Your task to perform on an android device: Go to calendar. Show me events next week Image 0: 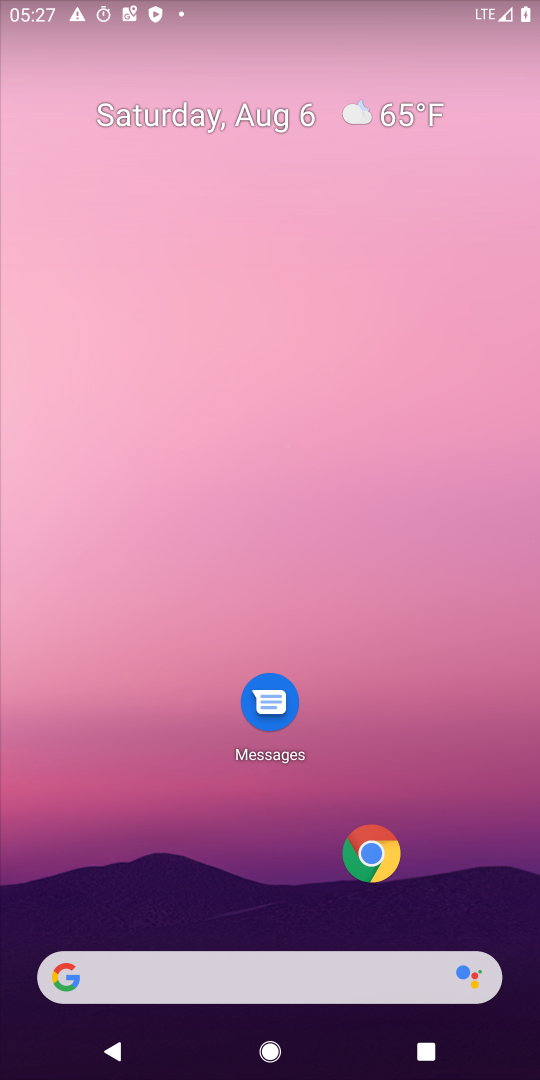
Step 0: press home button
Your task to perform on an android device: Go to calendar. Show me events next week Image 1: 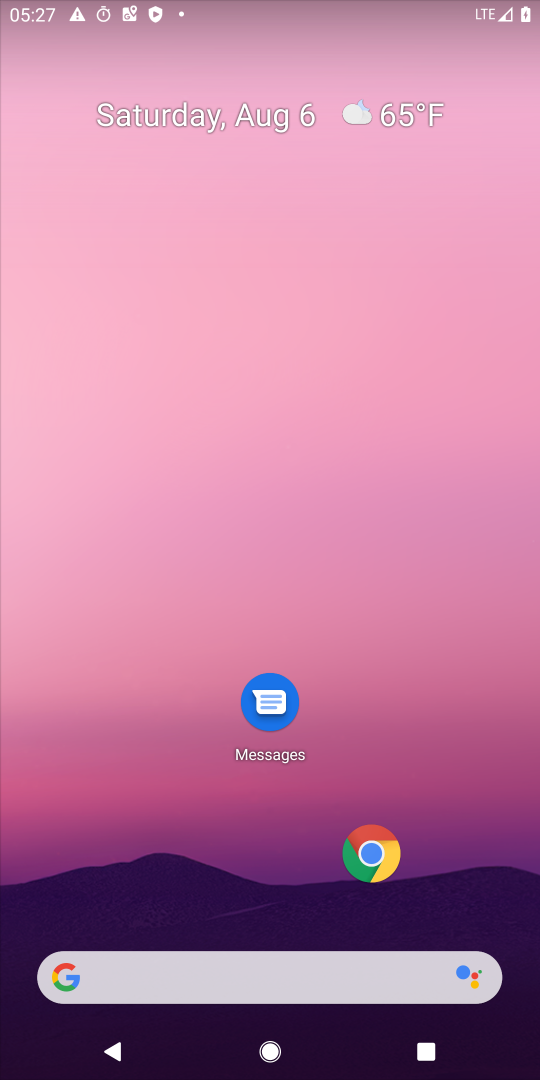
Step 1: drag from (180, 863) to (156, 53)
Your task to perform on an android device: Go to calendar. Show me events next week Image 2: 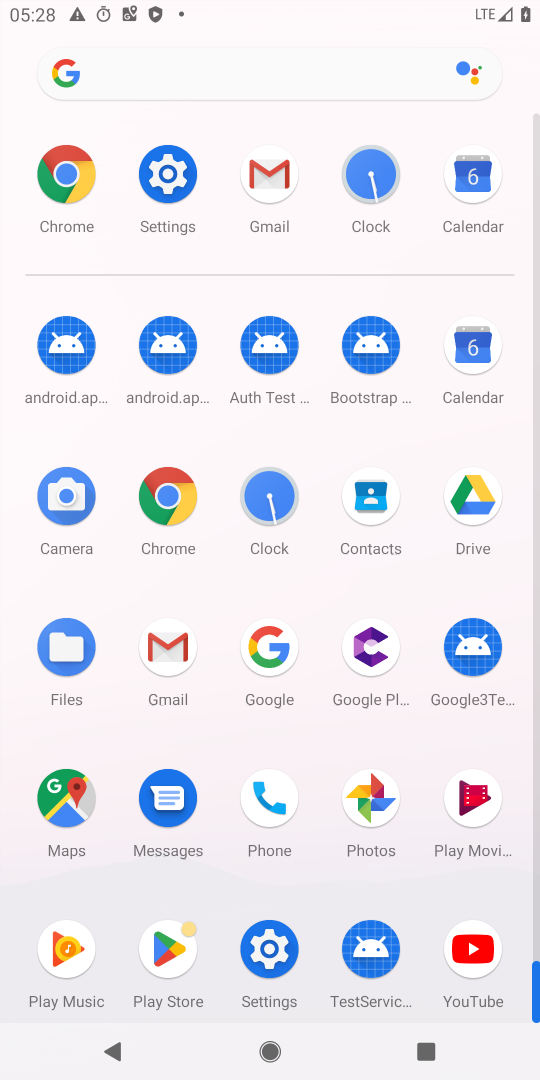
Step 2: click (457, 332)
Your task to perform on an android device: Go to calendar. Show me events next week Image 3: 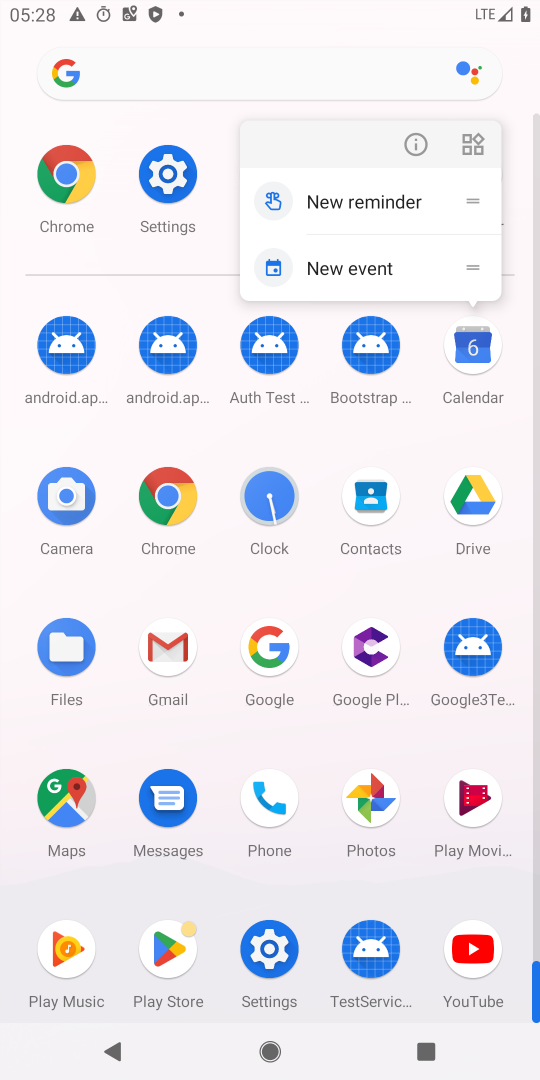
Step 3: click (482, 347)
Your task to perform on an android device: Go to calendar. Show me events next week Image 4: 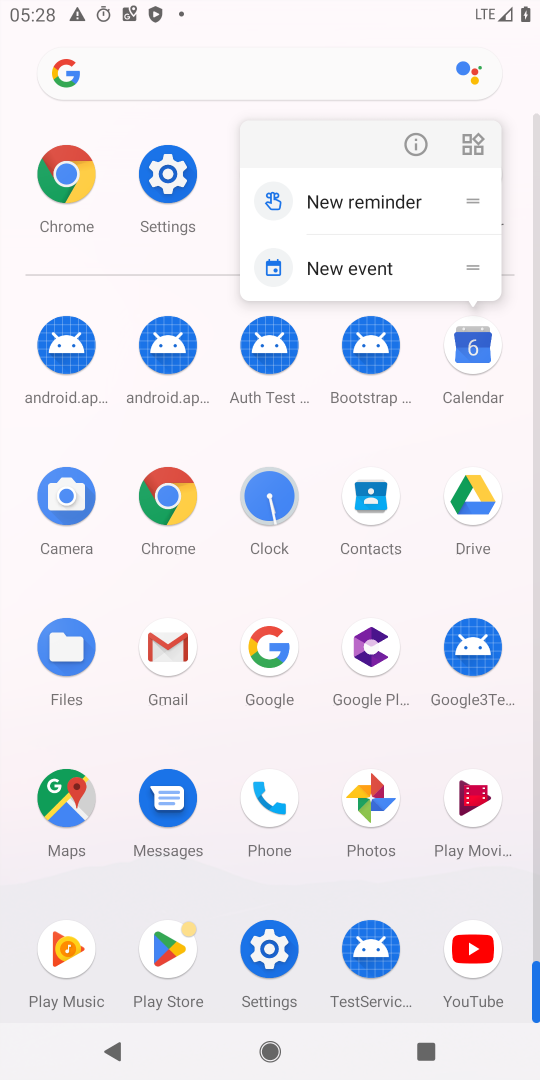
Step 4: click (484, 356)
Your task to perform on an android device: Go to calendar. Show me events next week Image 5: 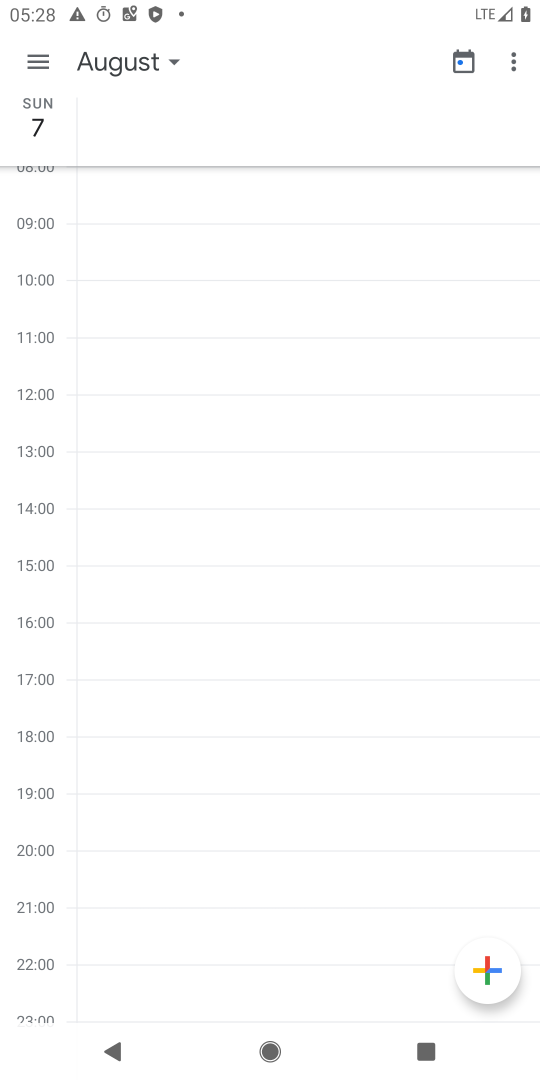
Step 5: click (48, 57)
Your task to perform on an android device: Go to calendar. Show me events next week Image 6: 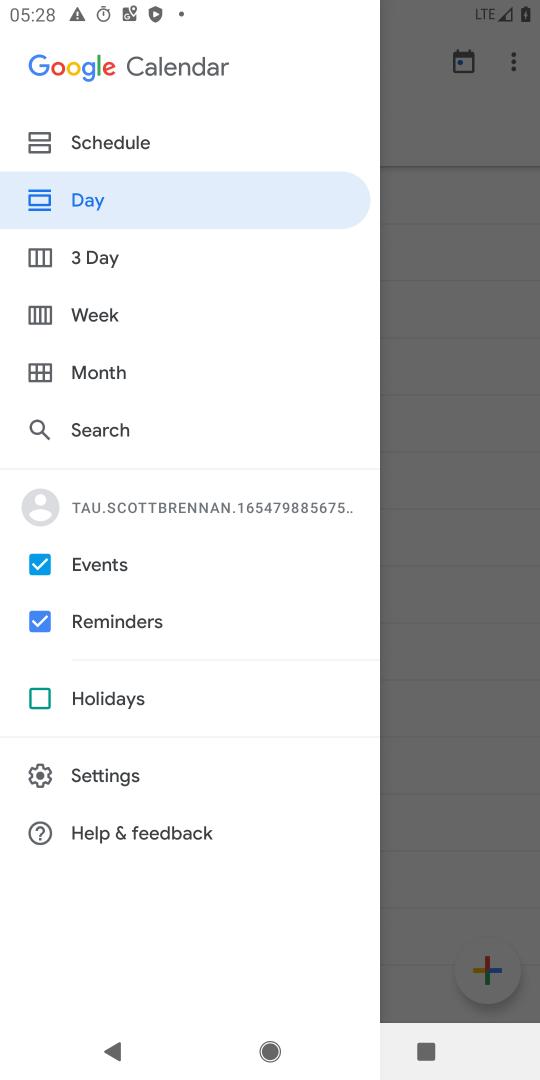
Step 6: click (101, 316)
Your task to perform on an android device: Go to calendar. Show me events next week Image 7: 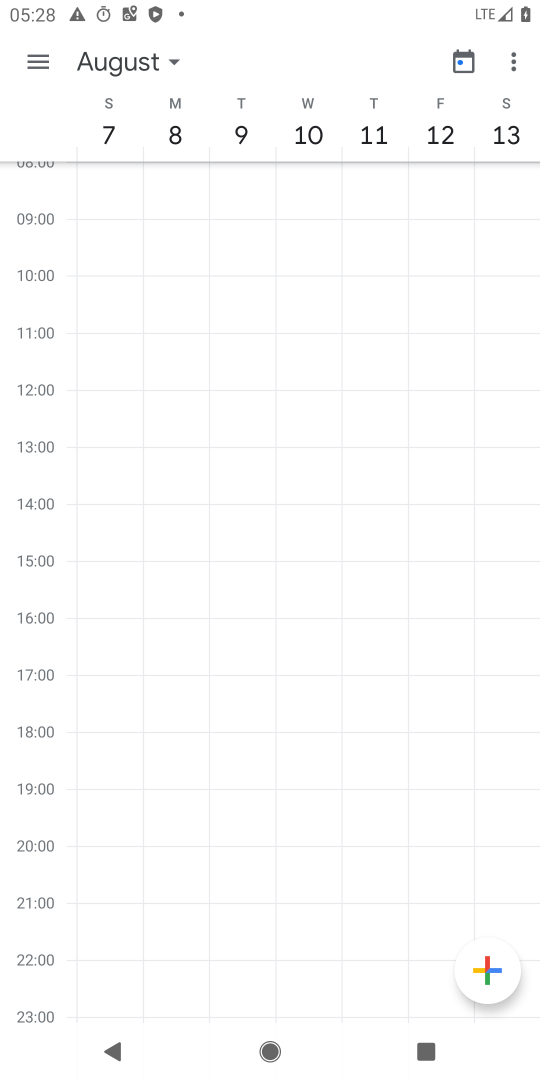
Step 7: click (165, 70)
Your task to perform on an android device: Go to calendar. Show me events next week Image 8: 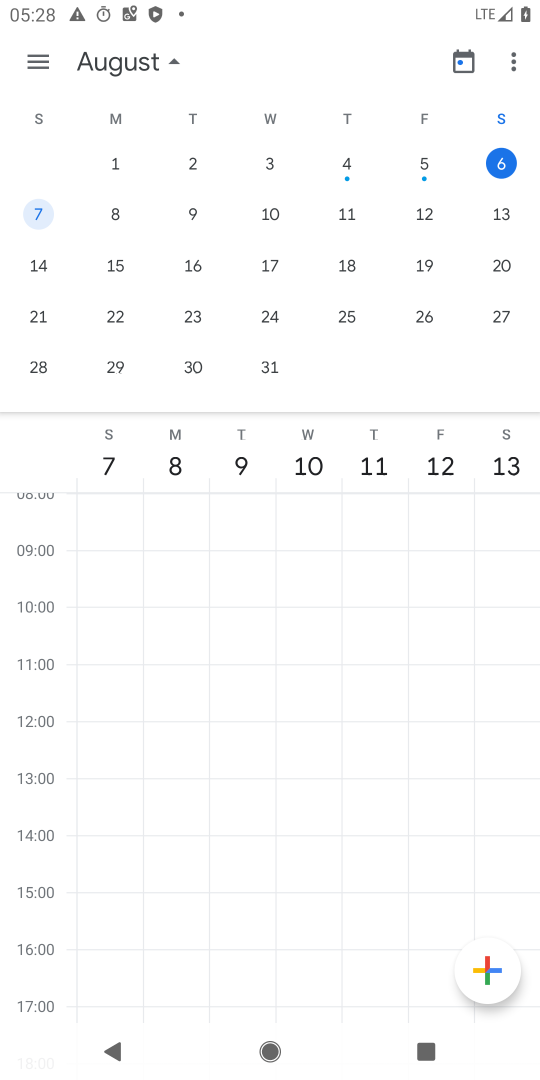
Step 8: click (185, 268)
Your task to perform on an android device: Go to calendar. Show me events next week Image 9: 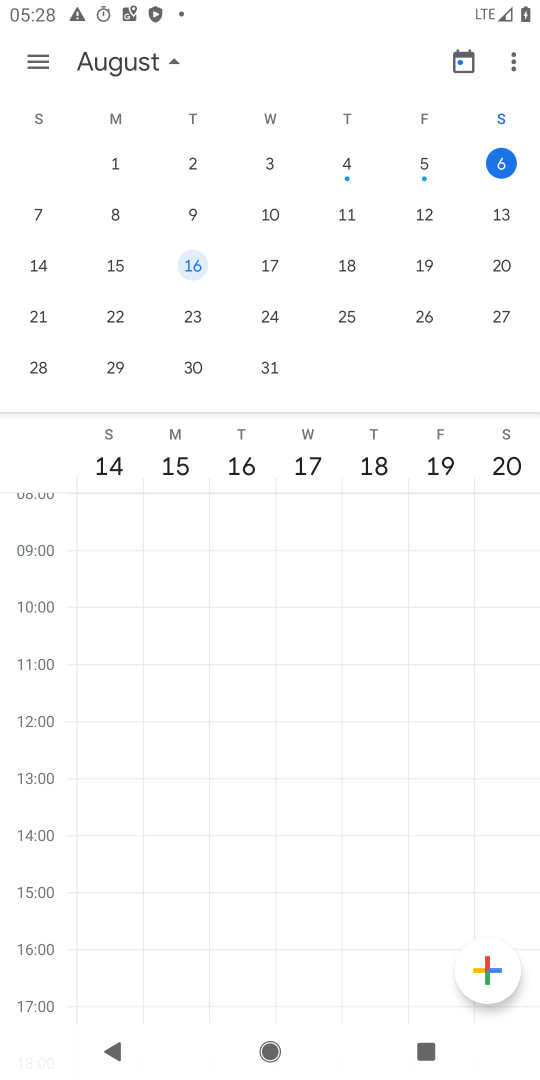
Step 9: click (315, 212)
Your task to perform on an android device: Go to calendar. Show me events next week Image 10: 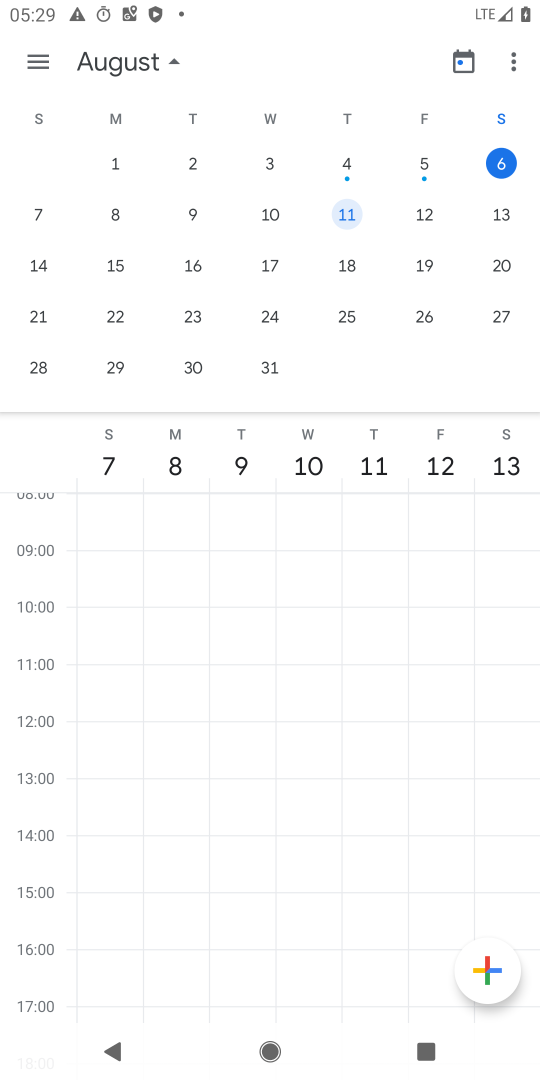
Step 10: task complete